Your task to perform on an android device: Search for Mexican restaurants on Maps Image 0: 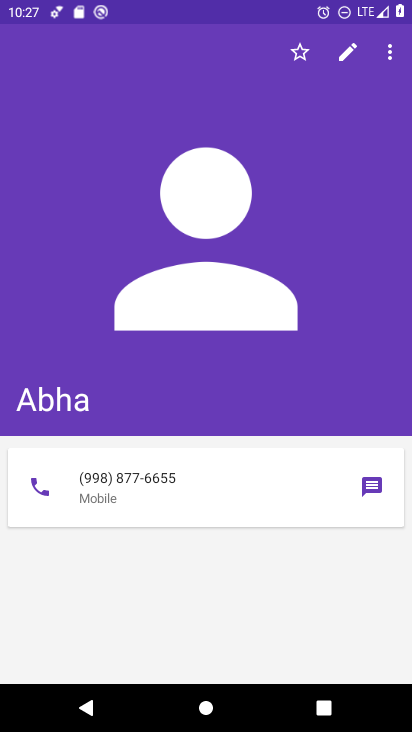
Step 0: press home button
Your task to perform on an android device: Search for Mexican restaurants on Maps Image 1: 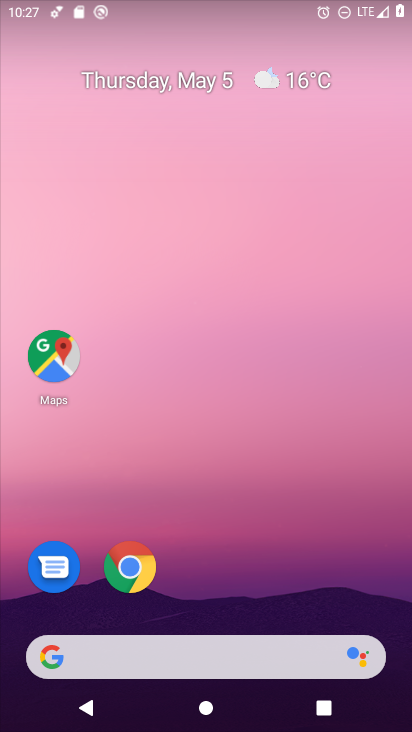
Step 1: drag from (230, 545) to (227, 3)
Your task to perform on an android device: Search for Mexican restaurants on Maps Image 2: 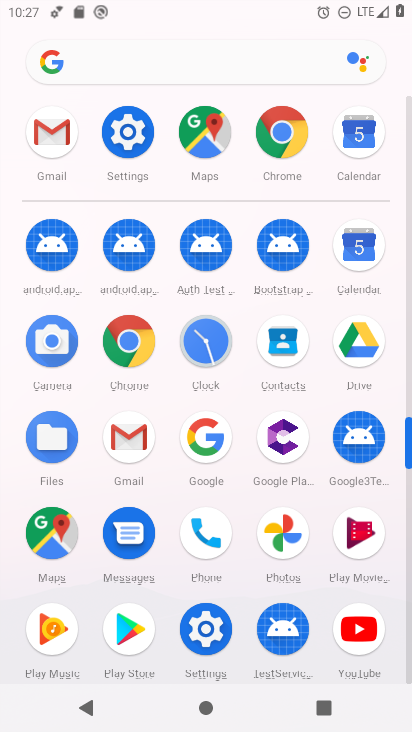
Step 2: click (194, 128)
Your task to perform on an android device: Search for Mexican restaurants on Maps Image 3: 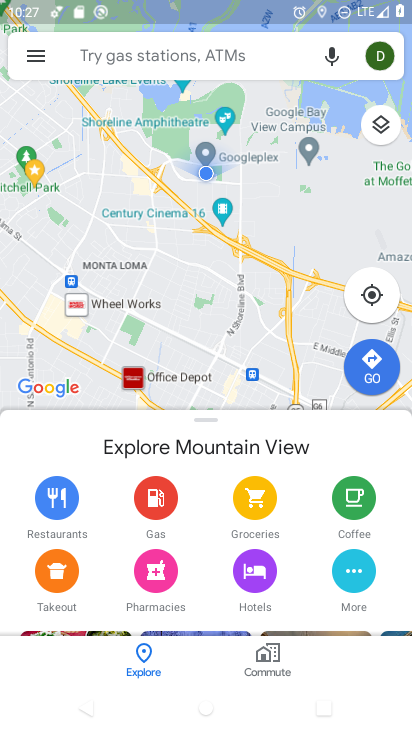
Step 3: click (235, 44)
Your task to perform on an android device: Search for Mexican restaurants on Maps Image 4: 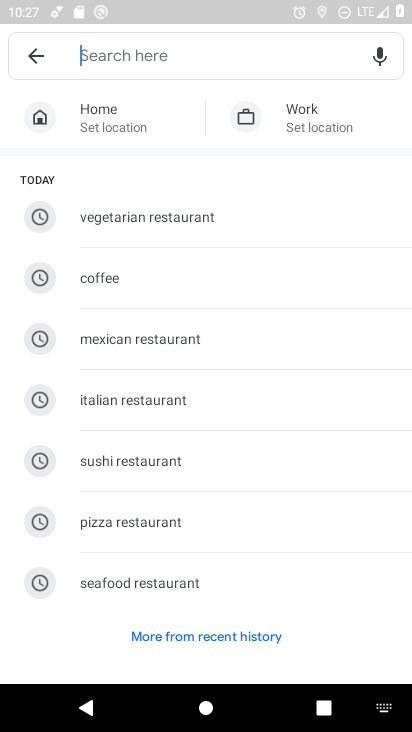
Step 4: click (160, 334)
Your task to perform on an android device: Search for Mexican restaurants on Maps Image 5: 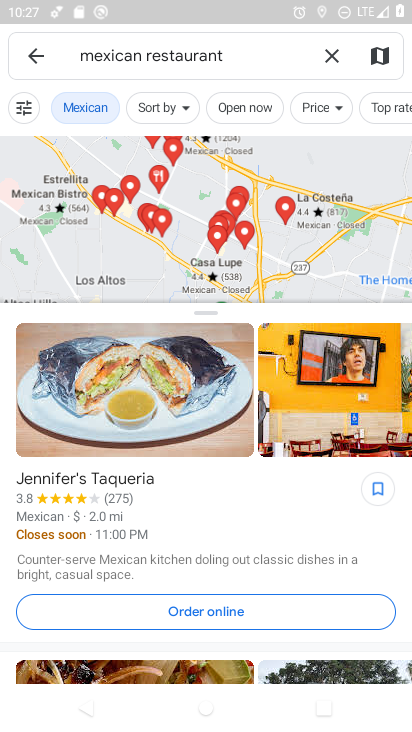
Step 5: task complete